Your task to perform on an android device: change keyboard looks Image 0: 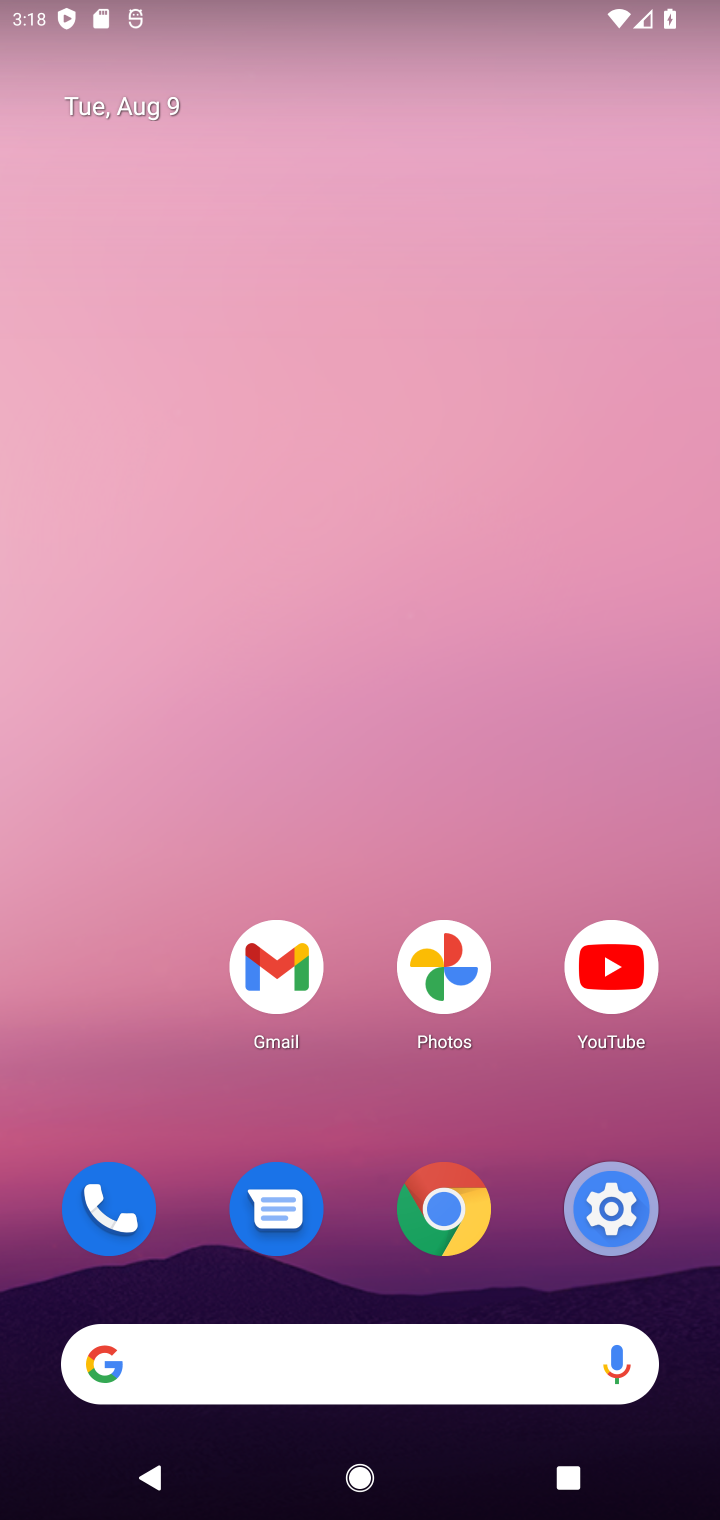
Step 0: drag from (341, 793) to (331, 151)
Your task to perform on an android device: change keyboard looks Image 1: 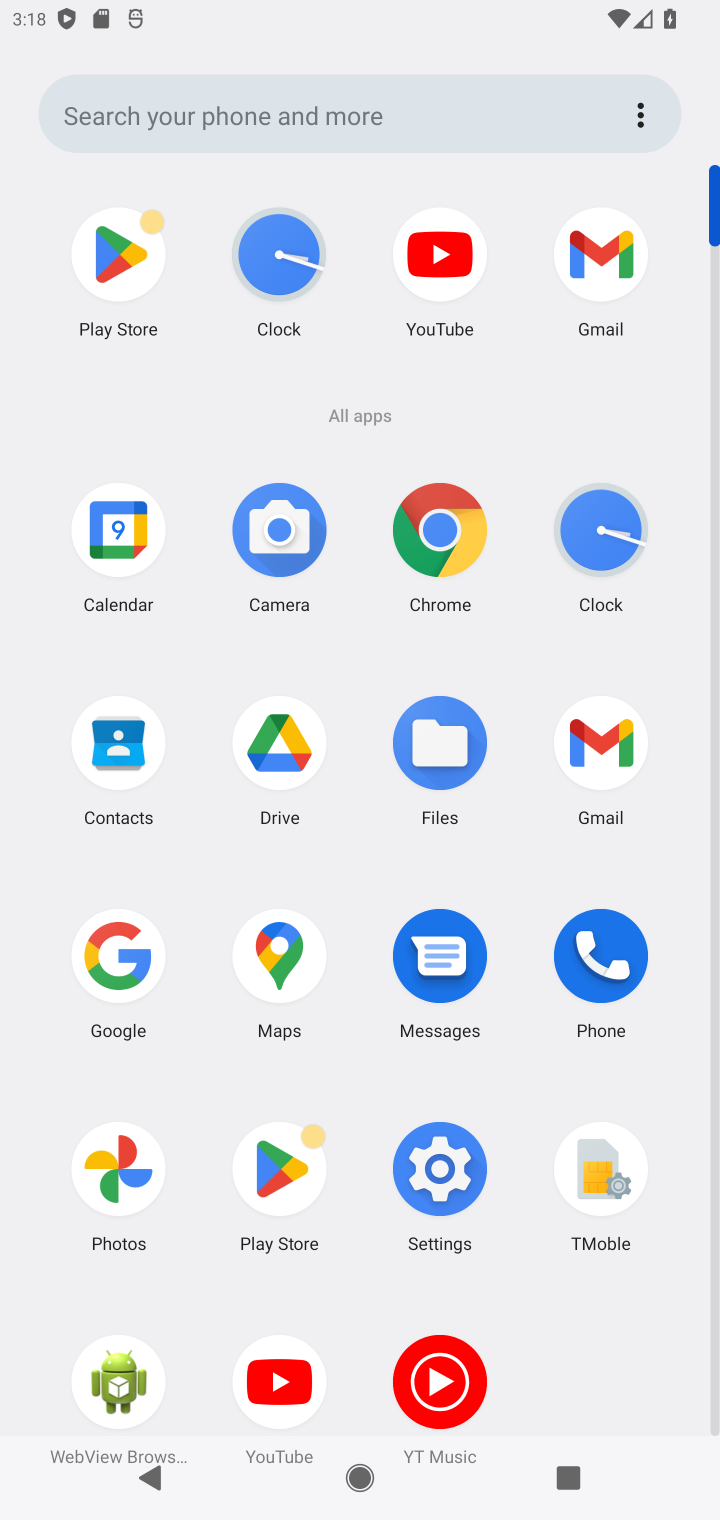
Step 1: click (441, 1171)
Your task to perform on an android device: change keyboard looks Image 2: 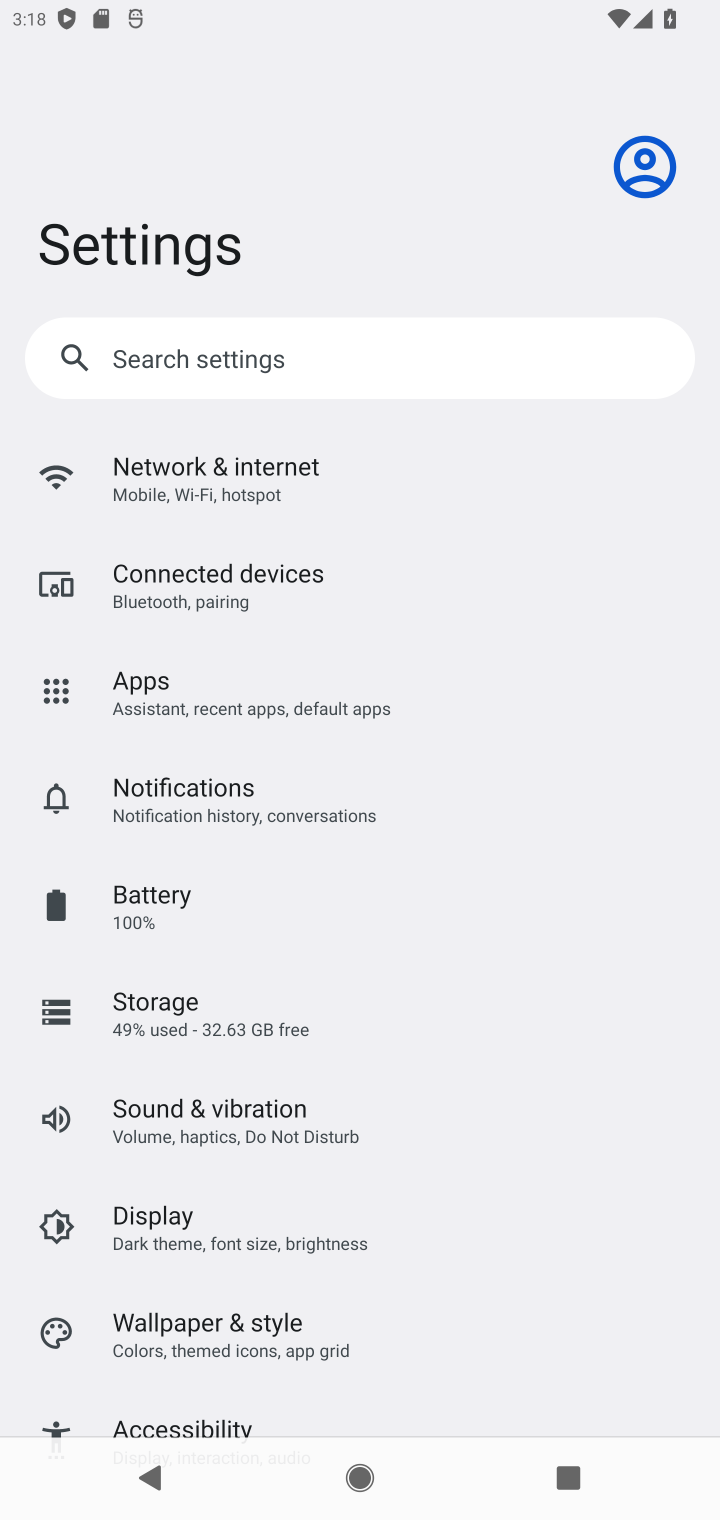
Step 2: drag from (242, 1358) to (267, 762)
Your task to perform on an android device: change keyboard looks Image 3: 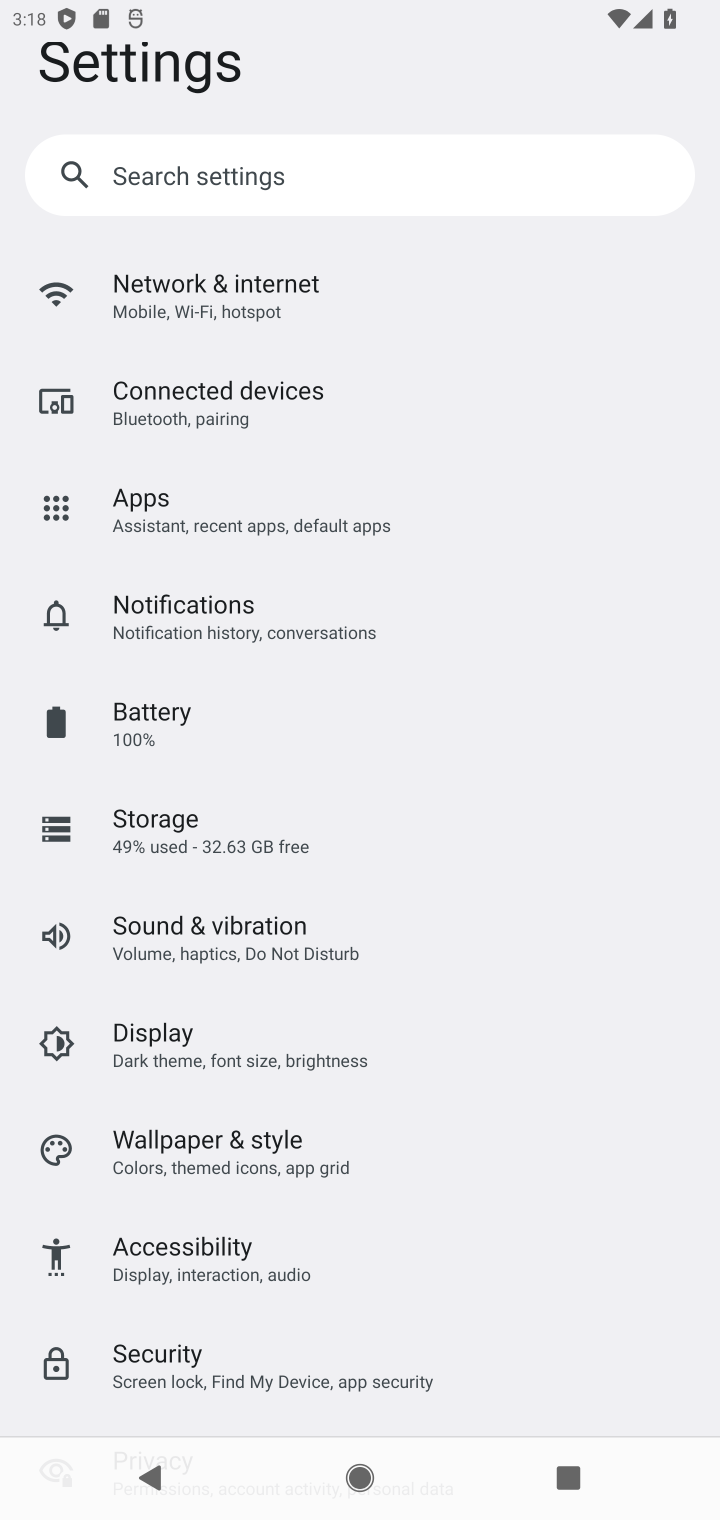
Step 3: drag from (198, 1338) to (176, 940)
Your task to perform on an android device: change keyboard looks Image 4: 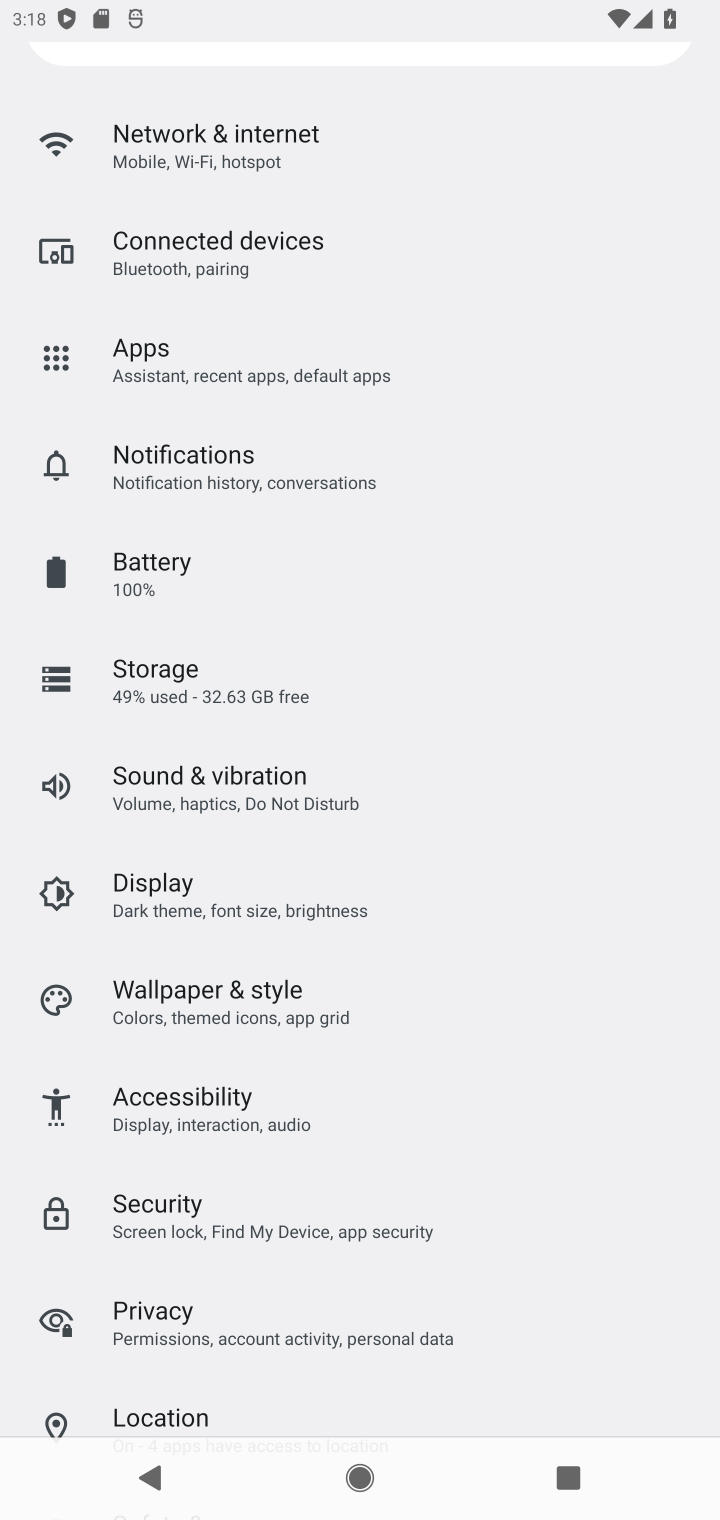
Step 4: drag from (190, 1378) to (190, 785)
Your task to perform on an android device: change keyboard looks Image 5: 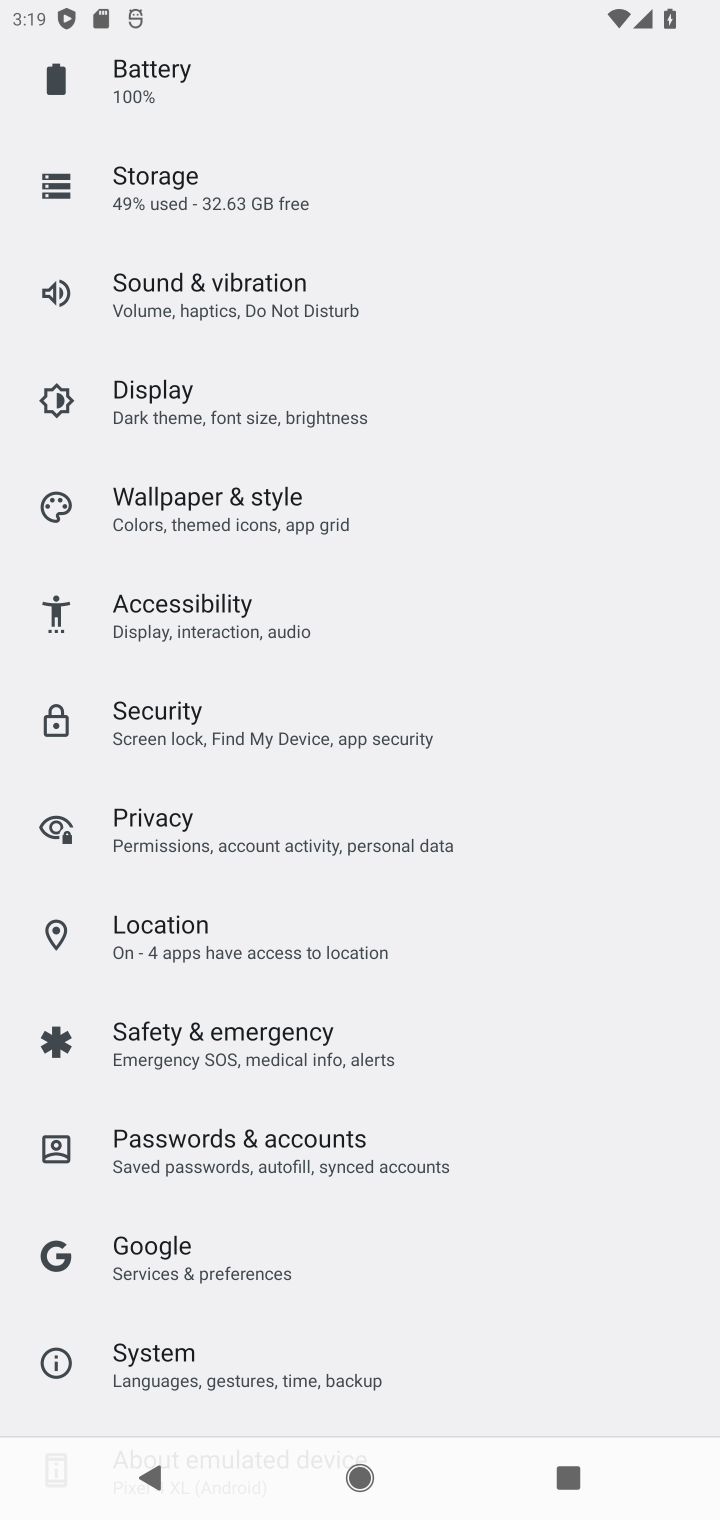
Step 5: drag from (265, 1351) to (250, 626)
Your task to perform on an android device: change keyboard looks Image 6: 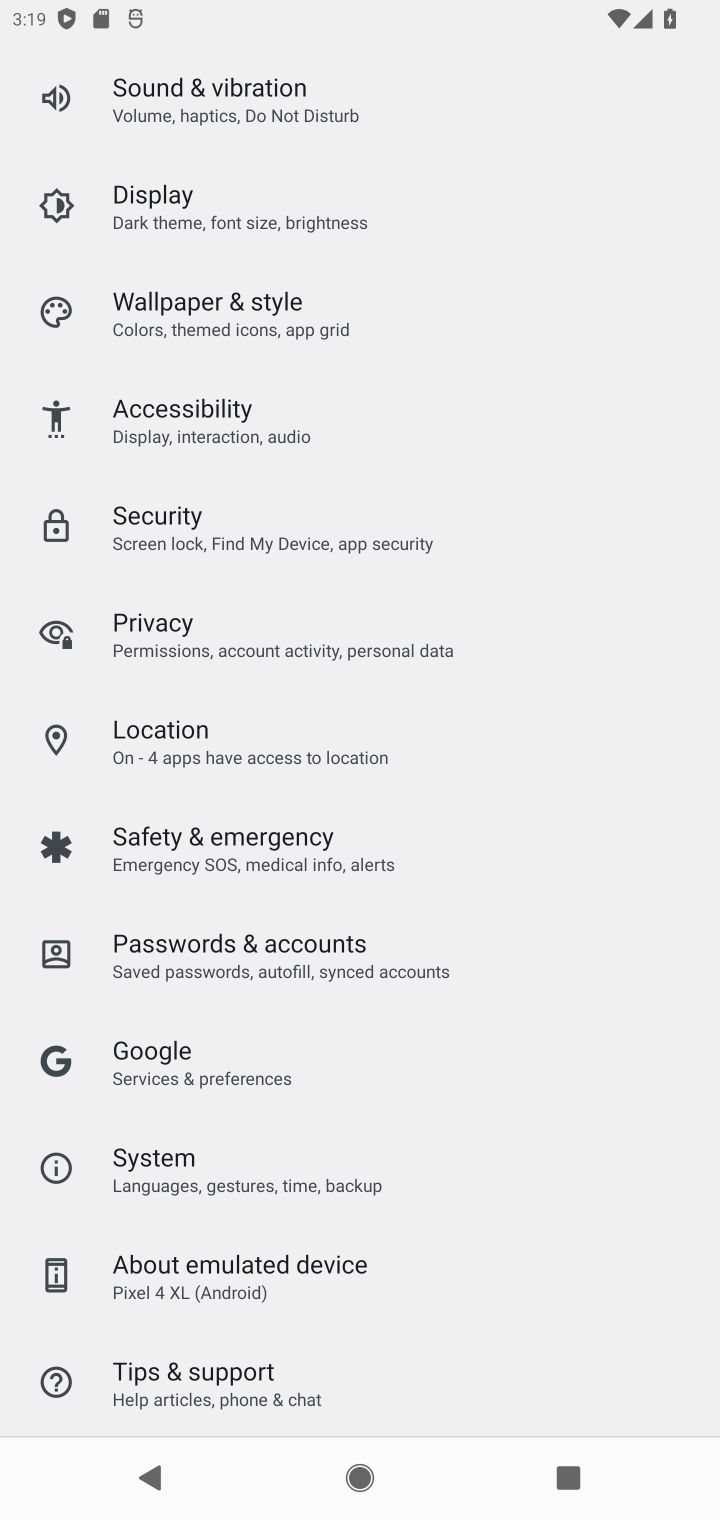
Step 6: drag from (232, 1327) to (222, 801)
Your task to perform on an android device: change keyboard looks Image 7: 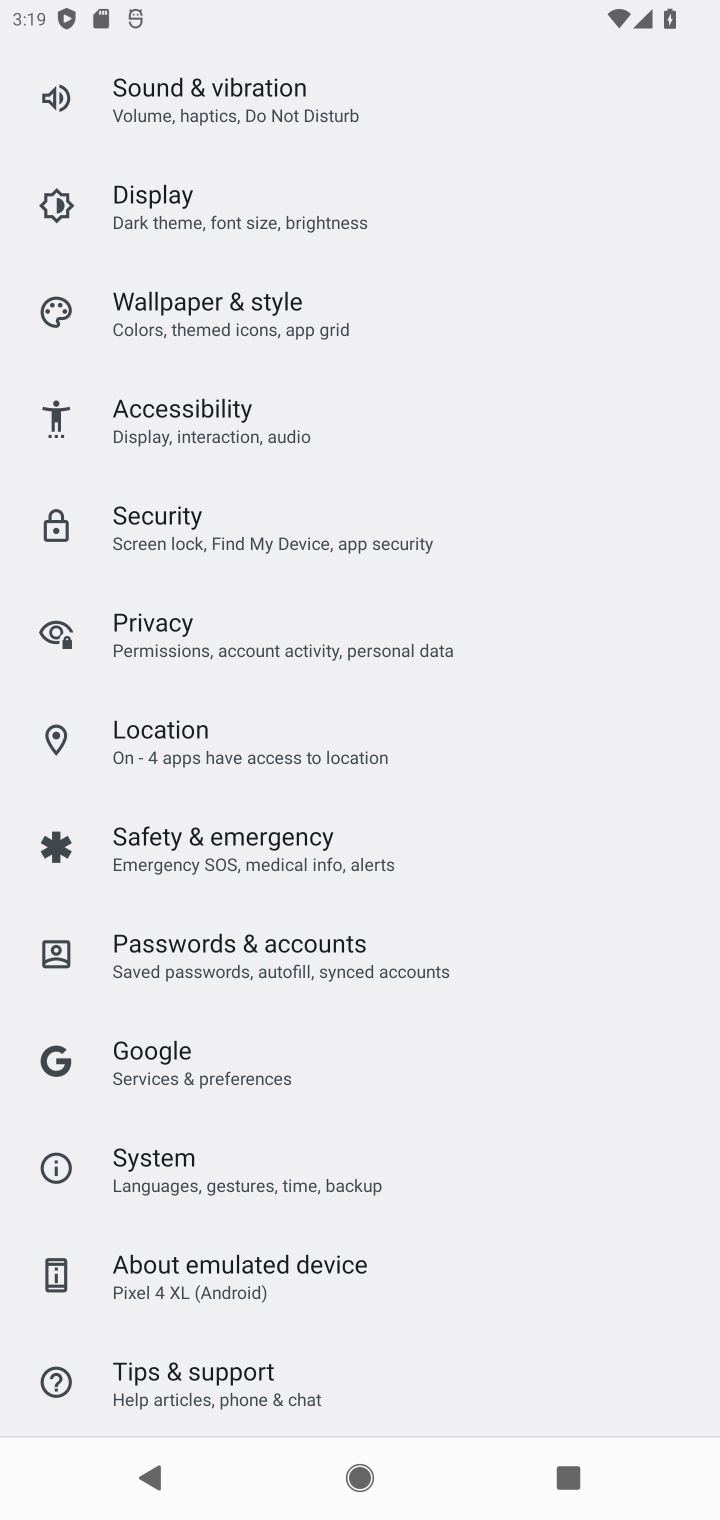
Step 7: click (171, 1163)
Your task to perform on an android device: change keyboard looks Image 8: 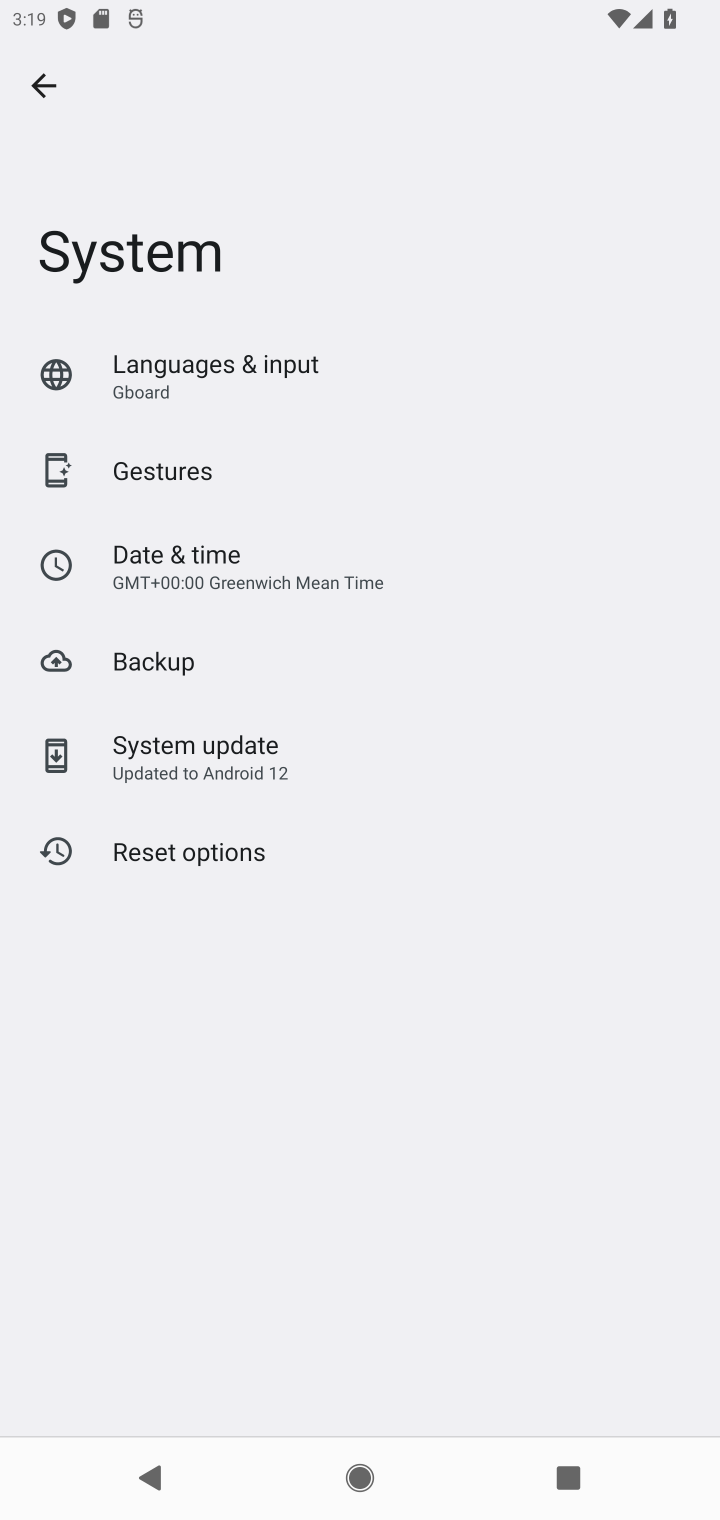
Step 8: click (234, 366)
Your task to perform on an android device: change keyboard looks Image 9: 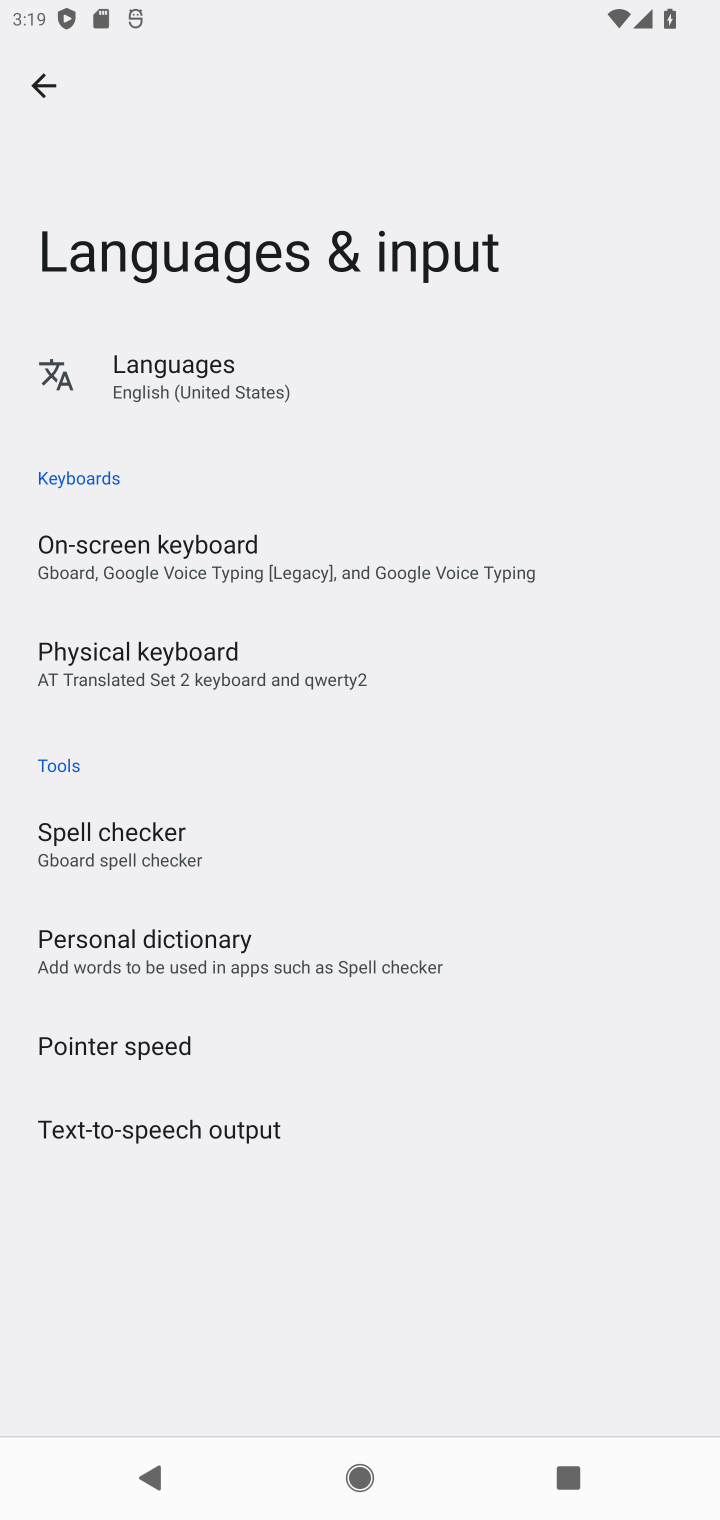
Step 9: click (238, 551)
Your task to perform on an android device: change keyboard looks Image 10: 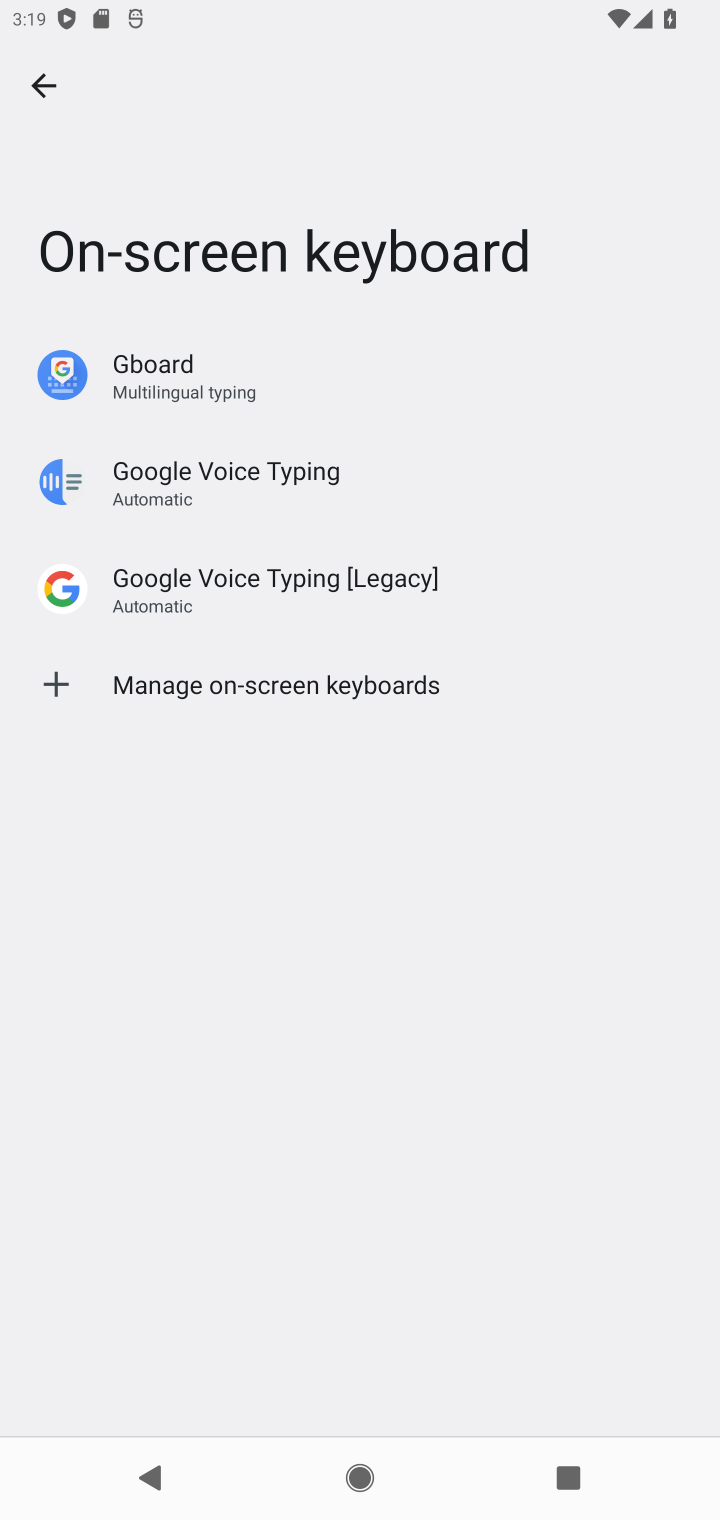
Step 10: click (177, 359)
Your task to perform on an android device: change keyboard looks Image 11: 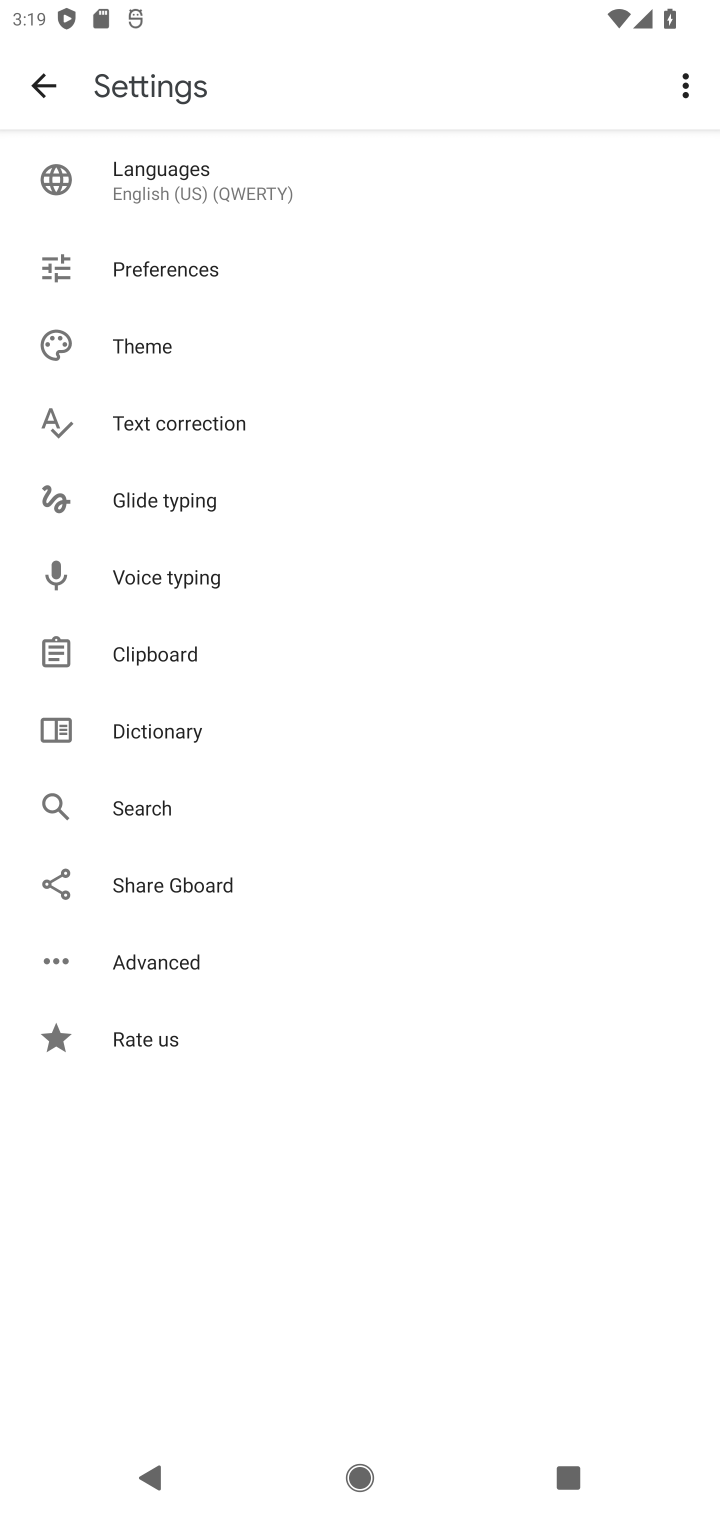
Step 11: click (148, 338)
Your task to perform on an android device: change keyboard looks Image 12: 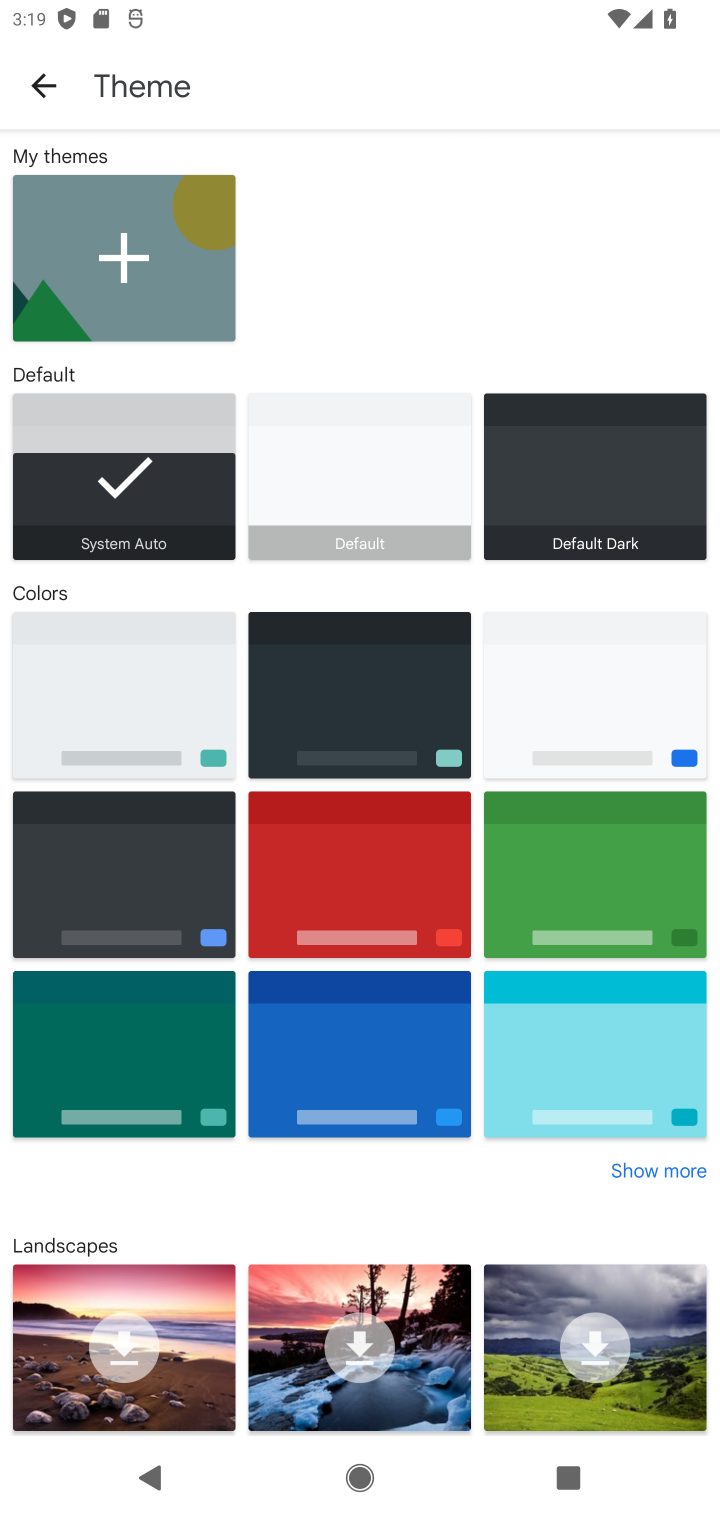
Step 12: click (567, 495)
Your task to perform on an android device: change keyboard looks Image 13: 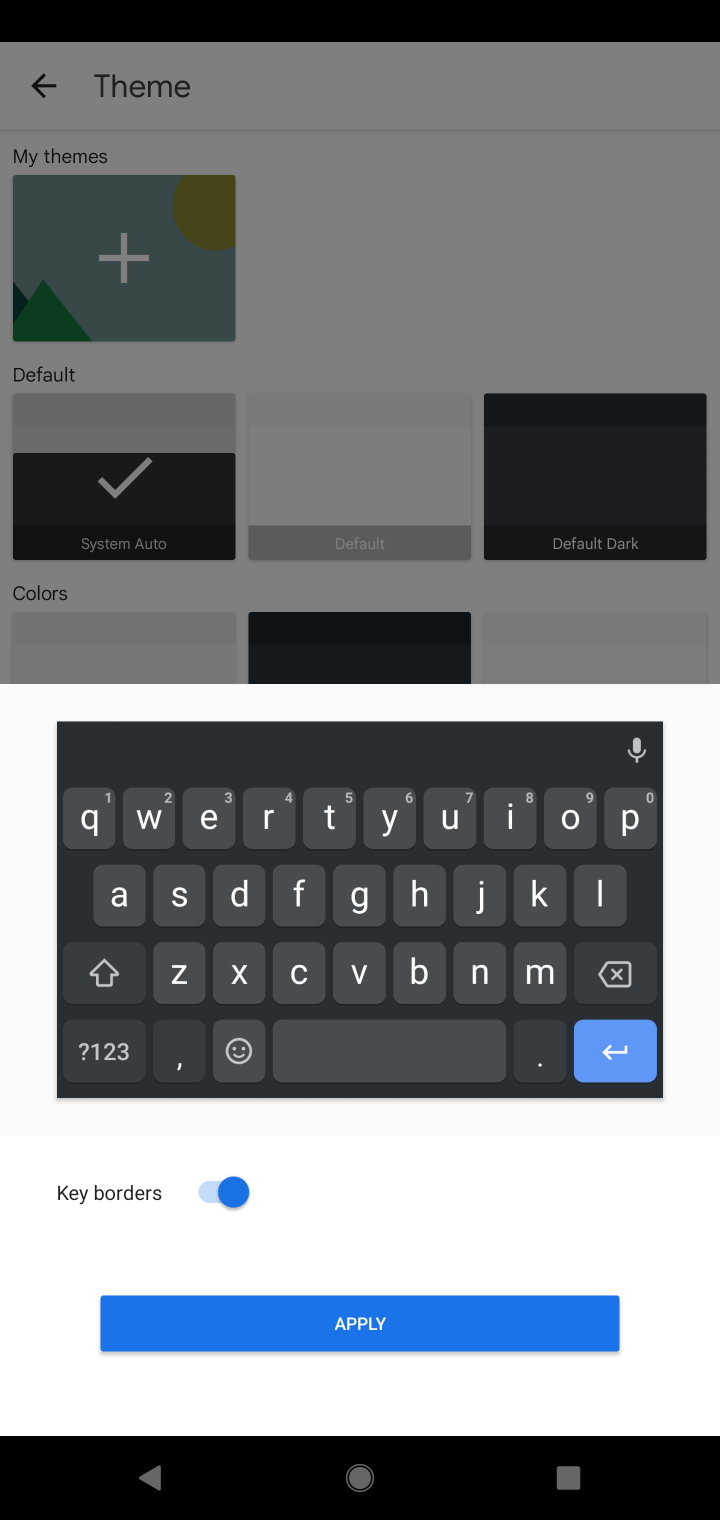
Step 13: click (362, 1317)
Your task to perform on an android device: change keyboard looks Image 14: 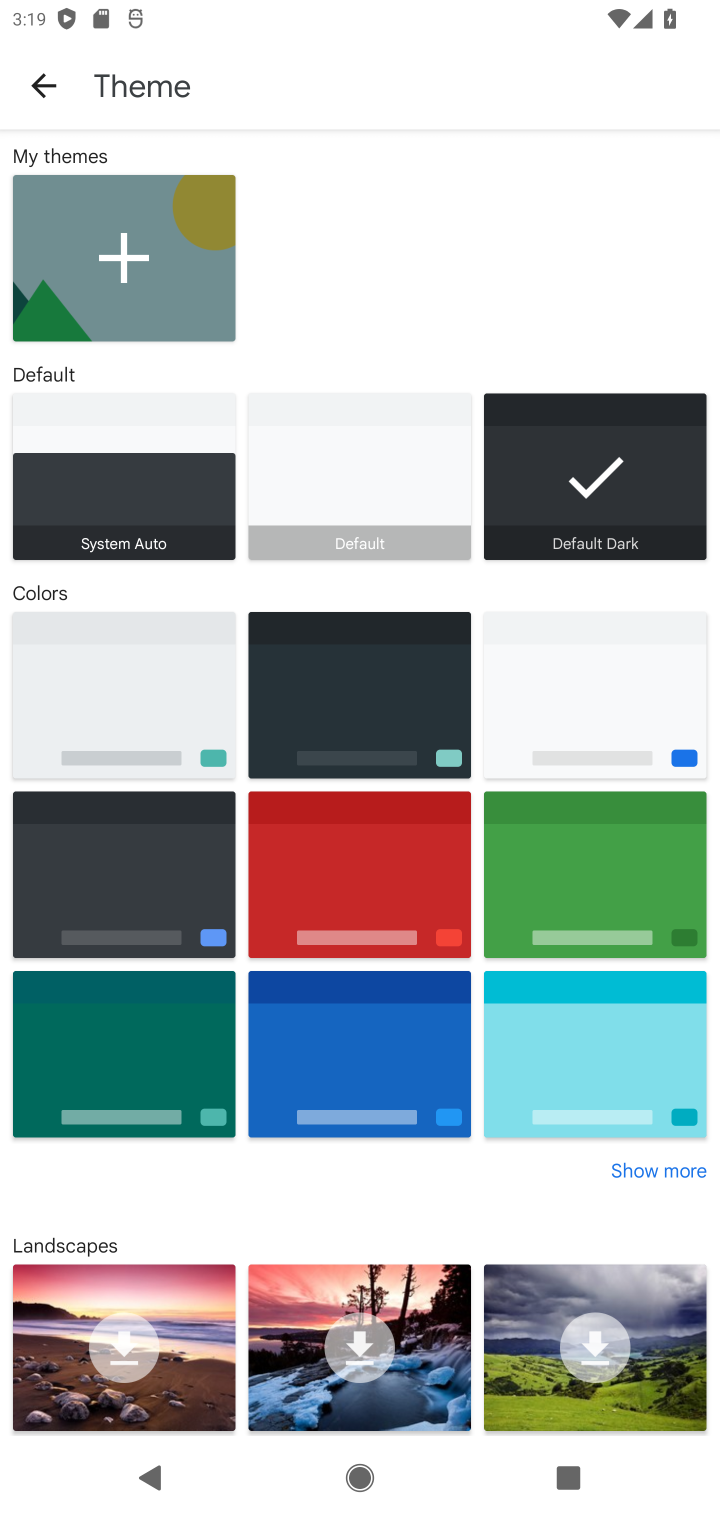
Step 14: task complete